Your task to perform on an android device: turn notification dots off Image 0: 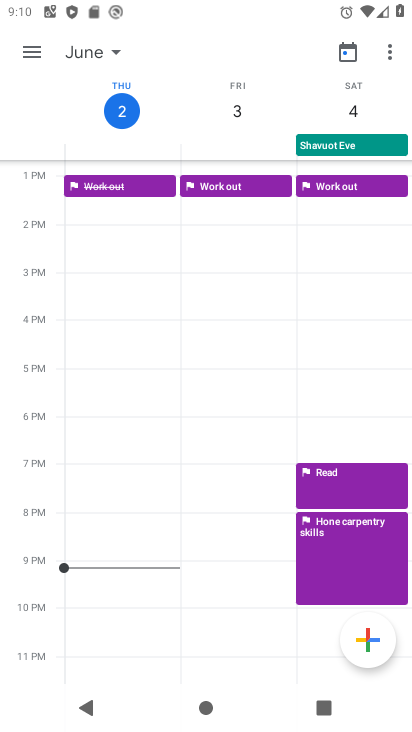
Step 0: press home button
Your task to perform on an android device: turn notification dots off Image 1: 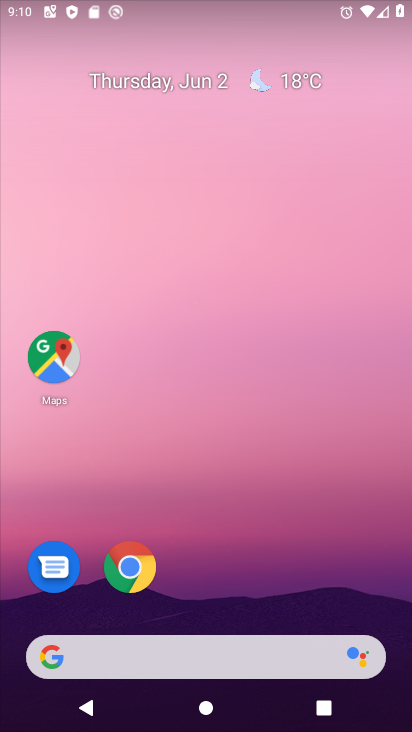
Step 1: drag from (204, 543) to (318, 6)
Your task to perform on an android device: turn notification dots off Image 2: 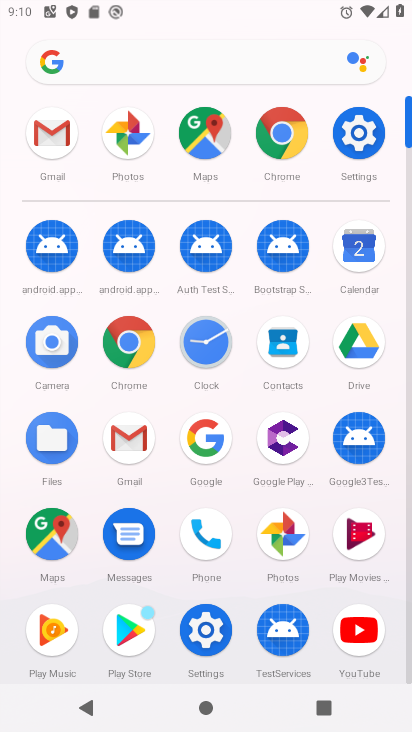
Step 2: click (356, 209)
Your task to perform on an android device: turn notification dots off Image 3: 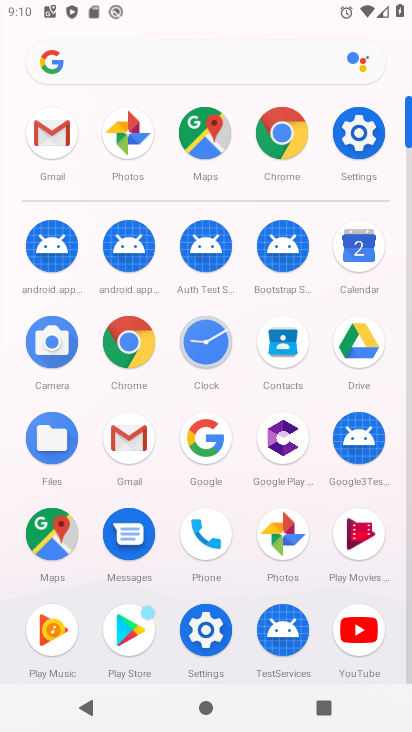
Step 3: click (352, 159)
Your task to perform on an android device: turn notification dots off Image 4: 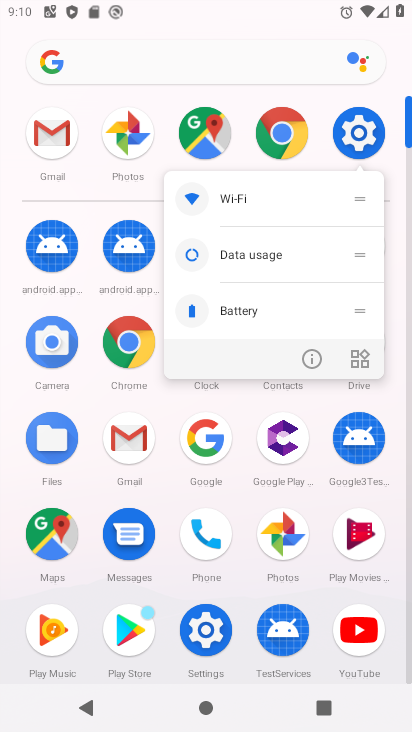
Step 4: click (362, 124)
Your task to perform on an android device: turn notification dots off Image 5: 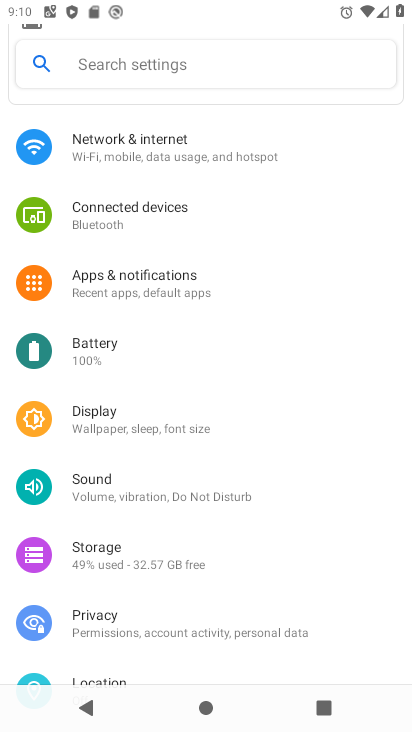
Step 5: click (166, 280)
Your task to perform on an android device: turn notification dots off Image 6: 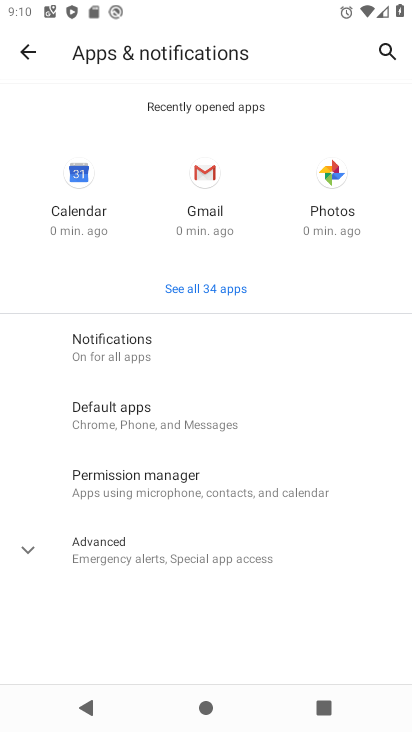
Step 6: click (128, 353)
Your task to perform on an android device: turn notification dots off Image 7: 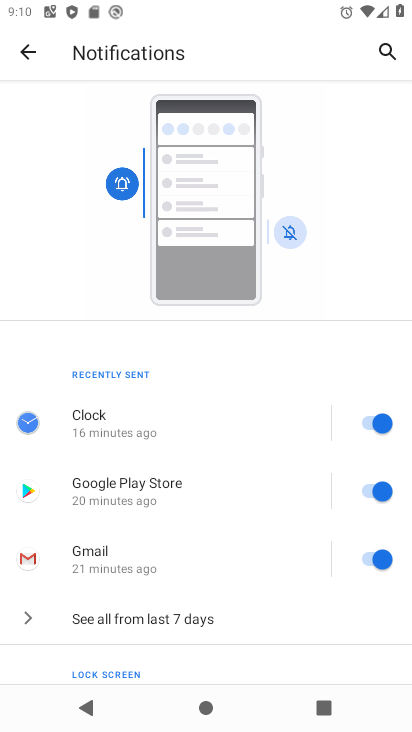
Step 7: drag from (145, 587) to (198, 281)
Your task to perform on an android device: turn notification dots off Image 8: 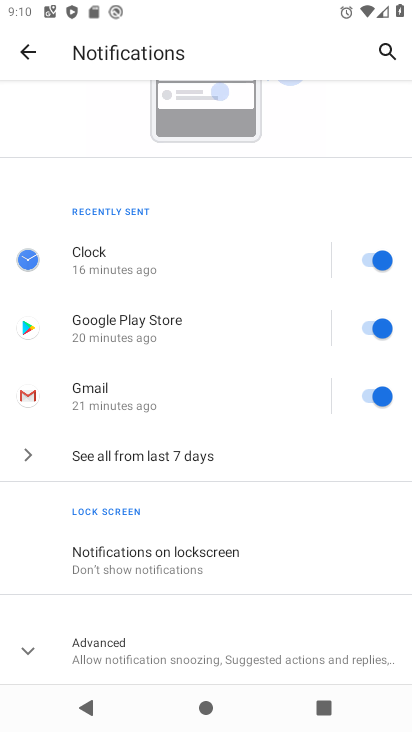
Step 8: click (180, 660)
Your task to perform on an android device: turn notification dots off Image 9: 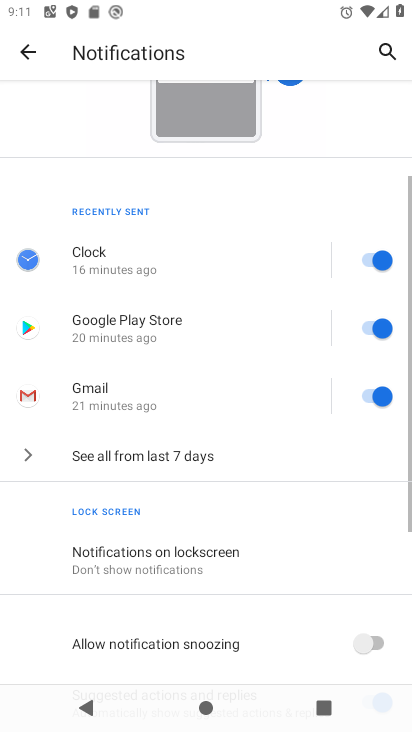
Step 9: drag from (205, 606) to (269, 262)
Your task to perform on an android device: turn notification dots off Image 10: 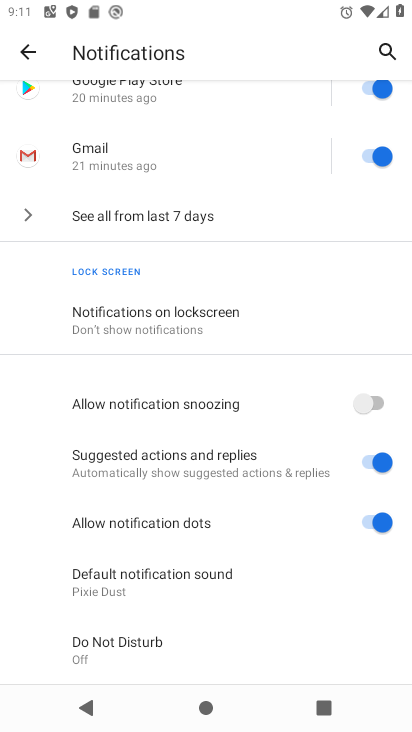
Step 10: click (354, 526)
Your task to perform on an android device: turn notification dots off Image 11: 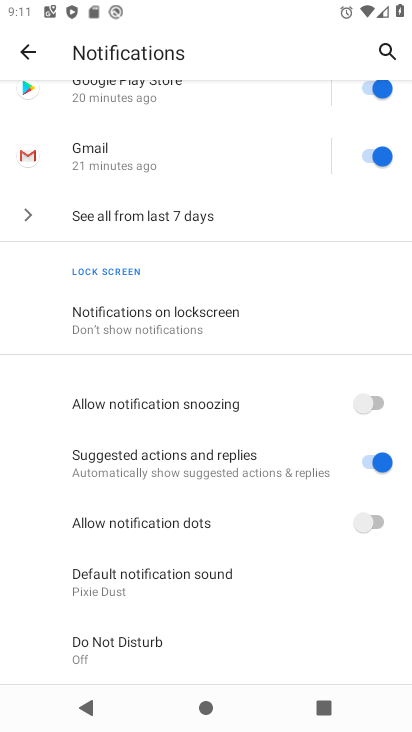
Step 11: task complete